Your task to perform on an android device: Go to accessibility settings Image 0: 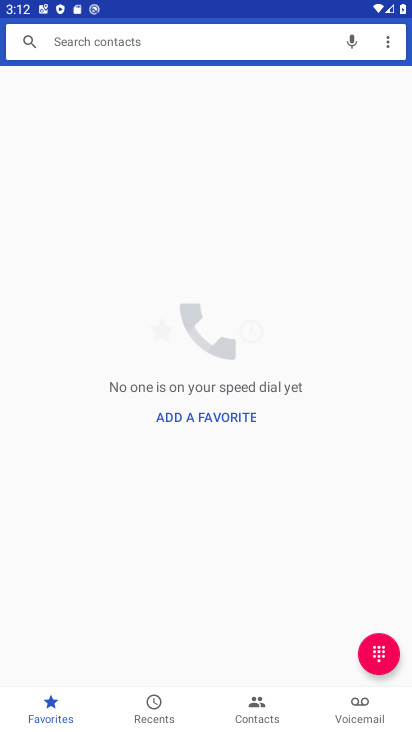
Step 0: press home button
Your task to perform on an android device: Go to accessibility settings Image 1: 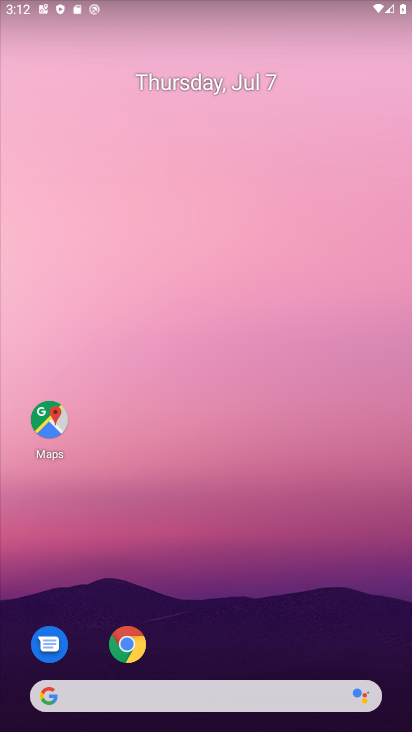
Step 1: drag from (151, 453) to (298, 54)
Your task to perform on an android device: Go to accessibility settings Image 2: 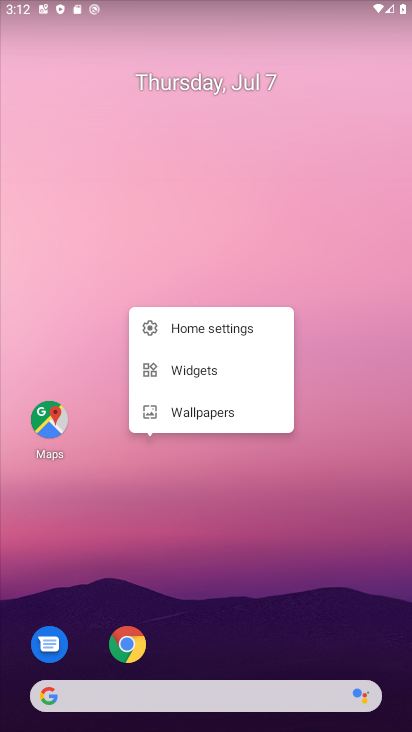
Step 2: click (235, 503)
Your task to perform on an android device: Go to accessibility settings Image 3: 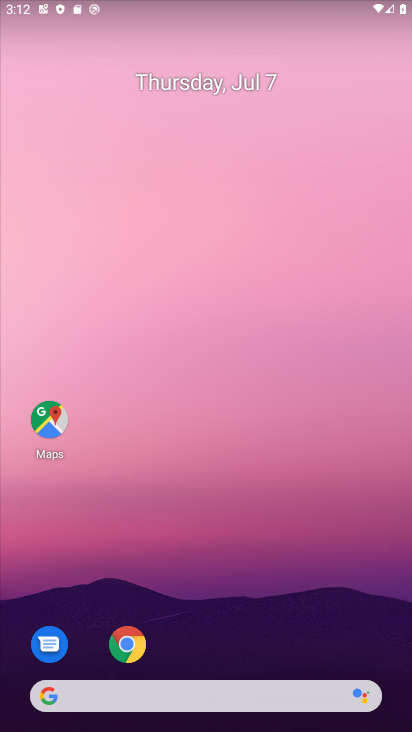
Step 3: drag from (179, 551) to (346, 169)
Your task to perform on an android device: Go to accessibility settings Image 4: 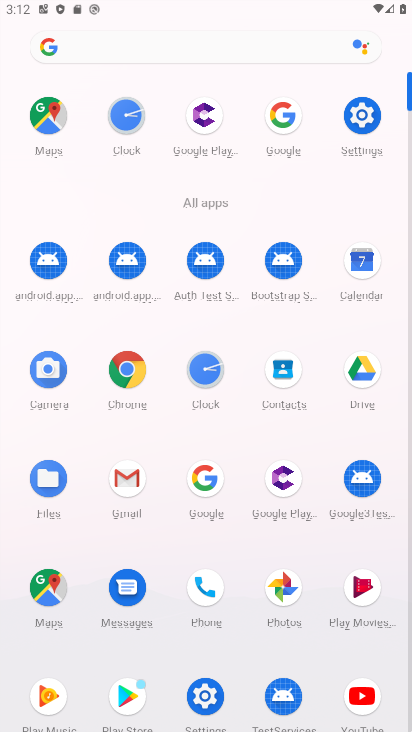
Step 4: click (354, 116)
Your task to perform on an android device: Go to accessibility settings Image 5: 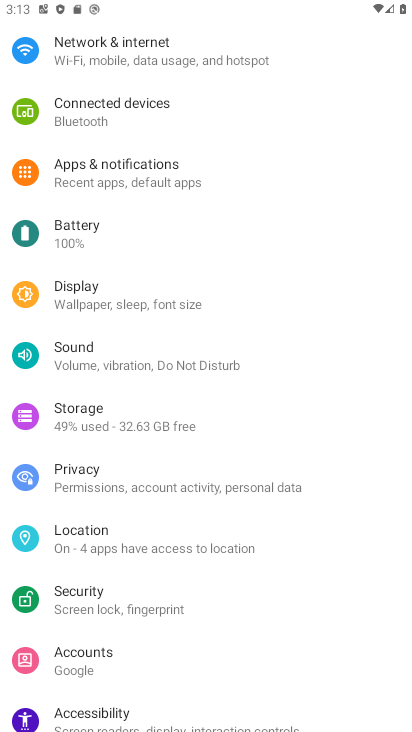
Step 5: drag from (227, 541) to (155, 61)
Your task to perform on an android device: Go to accessibility settings Image 6: 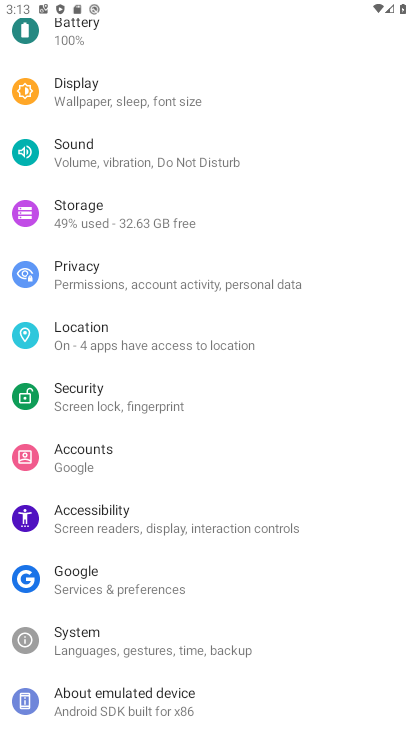
Step 6: click (129, 524)
Your task to perform on an android device: Go to accessibility settings Image 7: 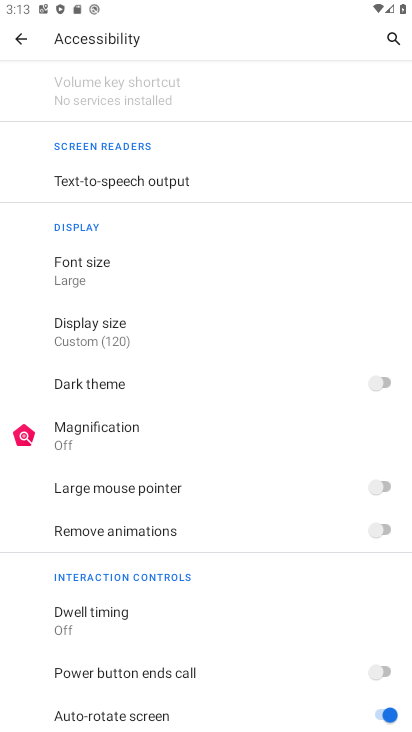
Step 7: task complete